Your task to perform on an android device: Go to location settings Image 0: 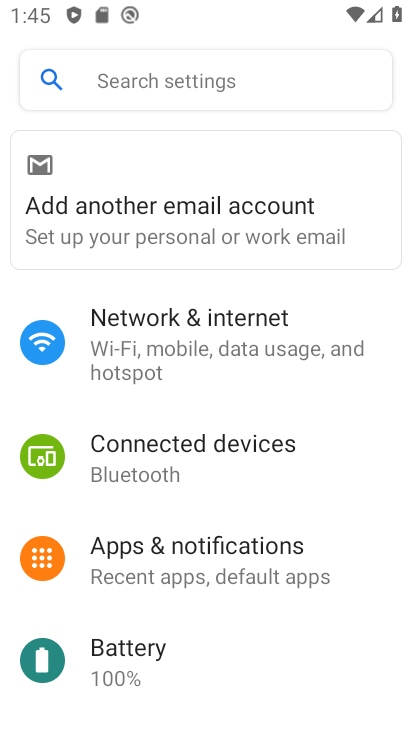
Step 0: drag from (167, 688) to (177, 511)
Your task to perform on an android device: Go to location settings Image 1: 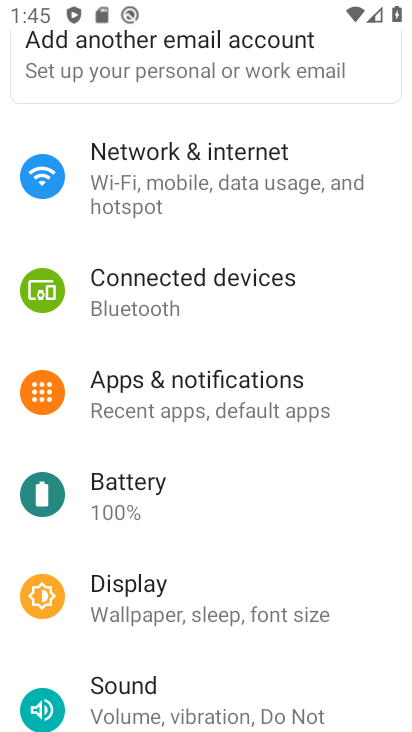
Step 1: drag from (153, 671) to (149, 530)
Your task to perform on an android device: Go to location settings Image 2: 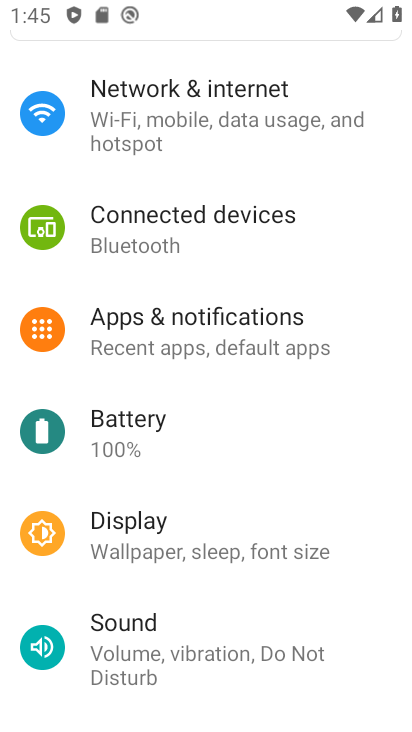
Step 2: drag from (180, 651) to (172, 519)
Your task to perform on an android device: Go to location settings Image 3: 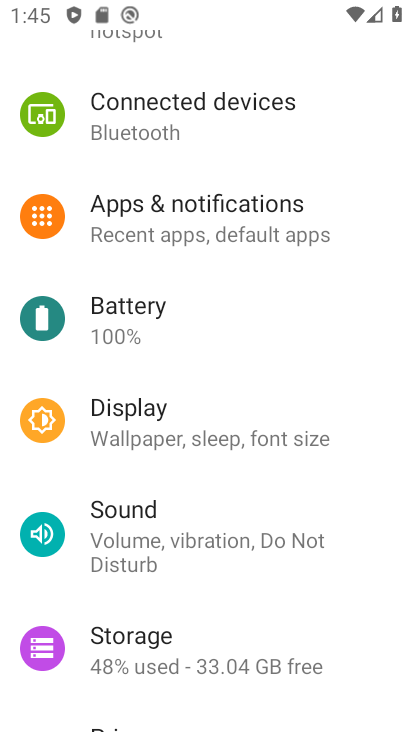
Step 3: drag from (196, 650) to (203, 568)
Your task to perform on an android device: Go to location settings Image 4: 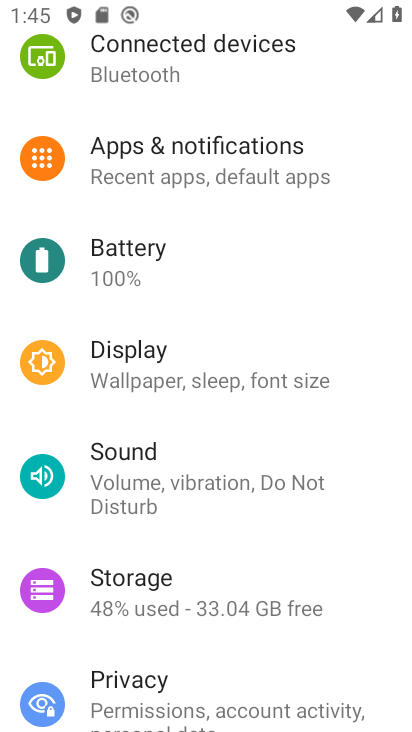
Step 4: drag from (220, 648) to (241, 578)
Your task to perform on an android device: Go to location settings Image 5: 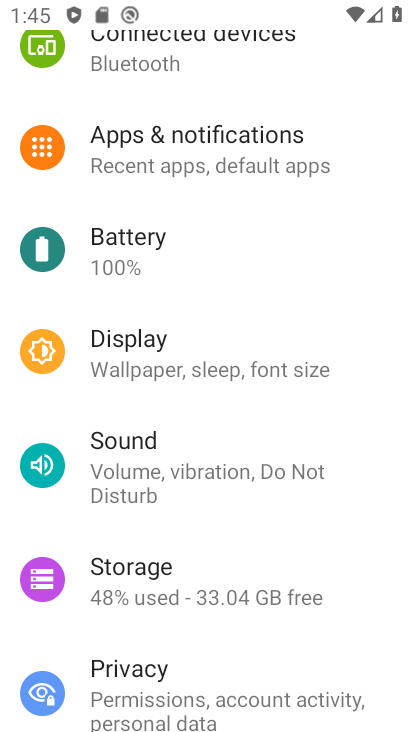
Step 5: drag from (249, 652) to (261, 514)
Your task to perform on an android device: Go to location settings Image 6: 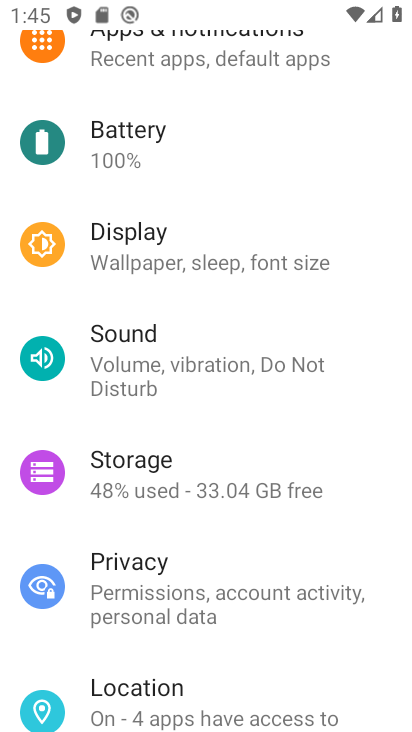
Step 6: click (252, 688)
Your task to perform on an android device: Go to location settings Image 7: 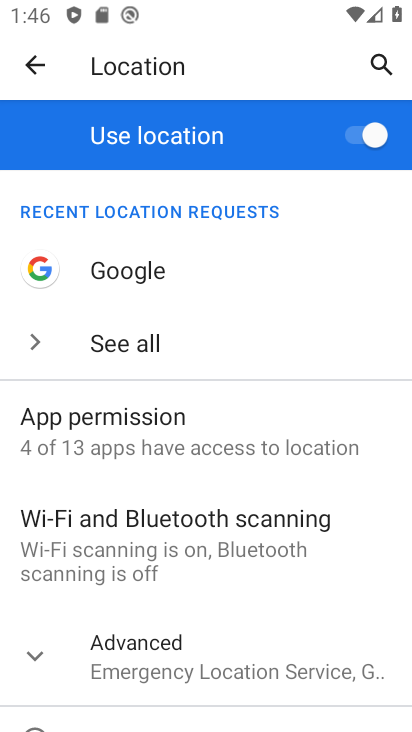
Step 7: task complete